Your task to perform on an android device: turn on data saver in the chrome app Image 0: 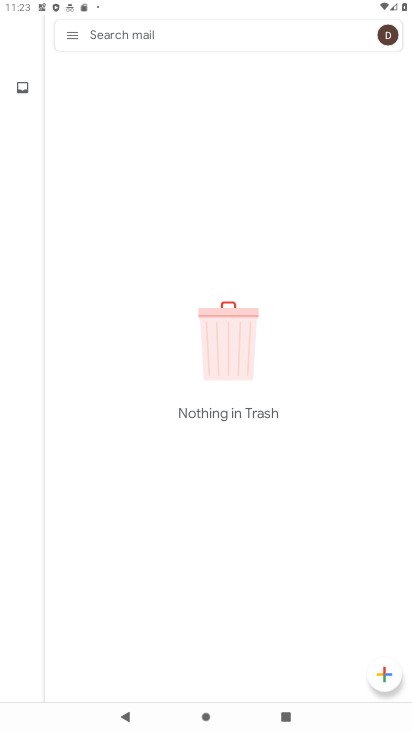
Step 0: press home button
Your task to perform on an android device: turn on data saver in the chrome app Image 1: 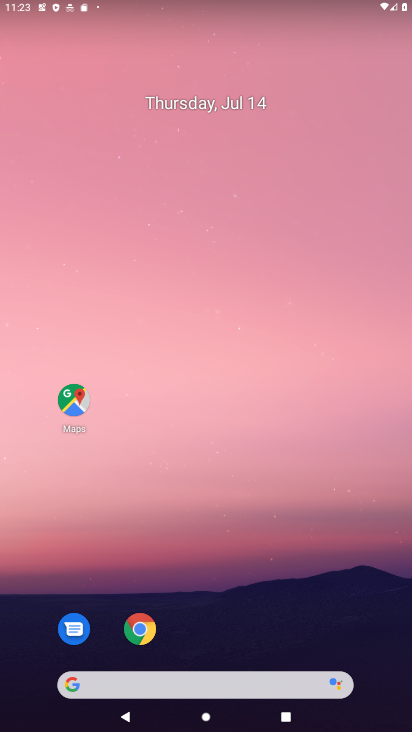
Step 1: click (139, 622)
Your task to perform on an android device: turn on data saver in the chrome app Image 2: 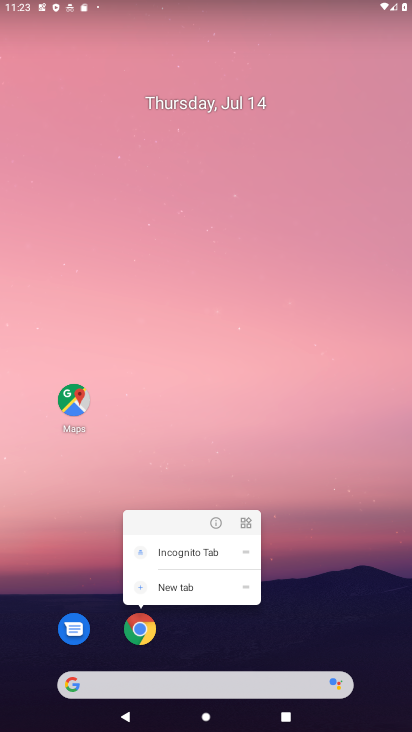
Step 2: click (141, 632)
Your task to perform on an android device: turn on data saver in the chrome app Image 3: 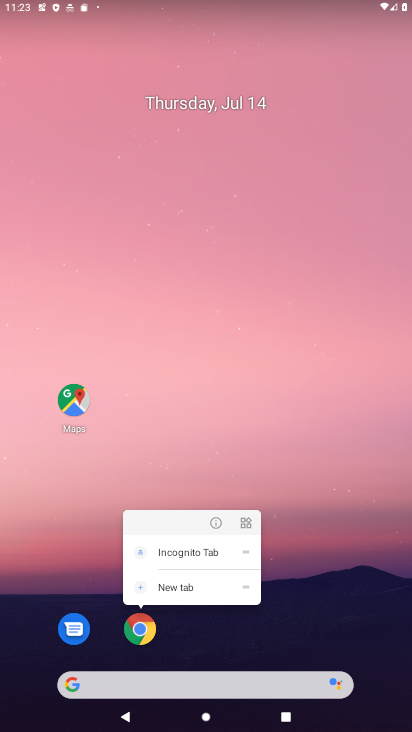
Step 3: click (141, 632)
Your task to perform on an android device: turn on data saver in the chrome app Image 4: 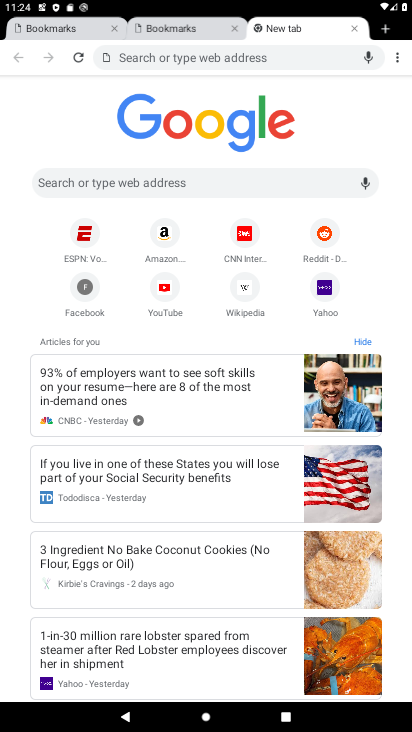
Step 4: drag from (399, 54) to (297, 264)
Your task to perform on an android device: turn on data saver in the chrome app Image 5: 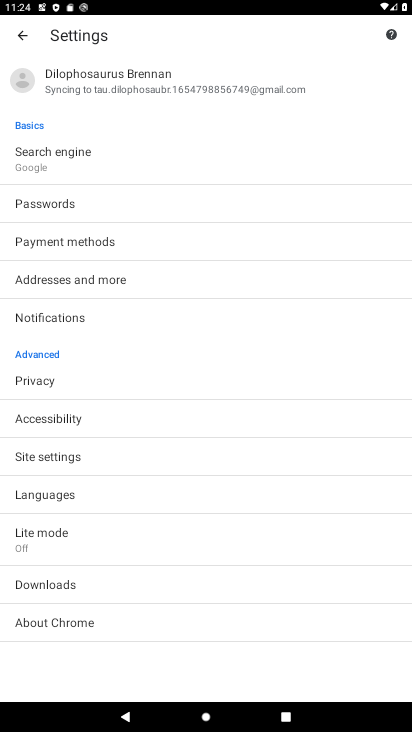
Step 5: click (23, 536)
Your task to perform on an android device: turn on data saver in the chrome app Image 6: 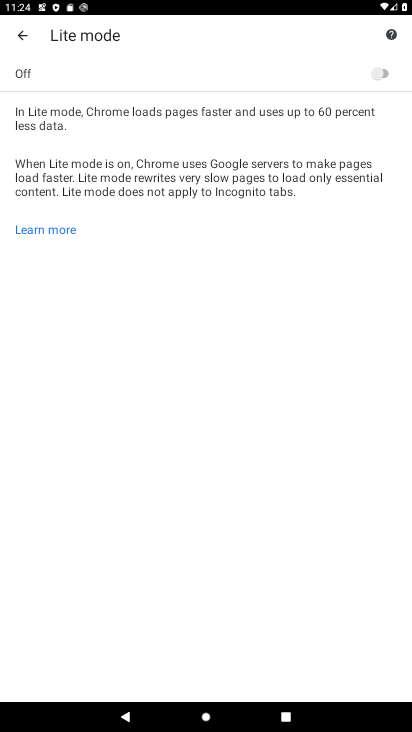
Step 6: click (373, 79)
Your task to perform on an android device: turn on data saver in the chrome app Image 7: 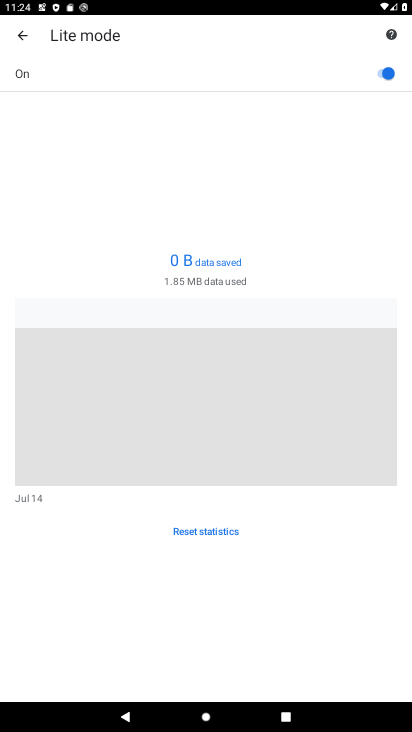
Step 7: task complete